Your task to perform on an android device: turn off translation in the chrome app Image 0: 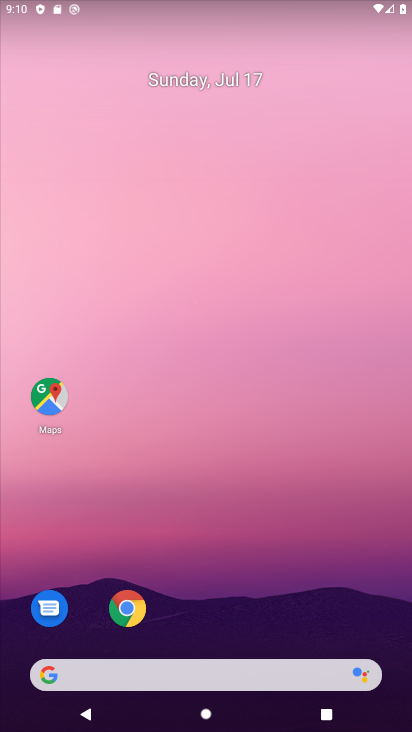
Step 0: drag from (346, 613) to (409, 143)
Your task to perform on an android device: turn off translation in the chrome app Image 1: 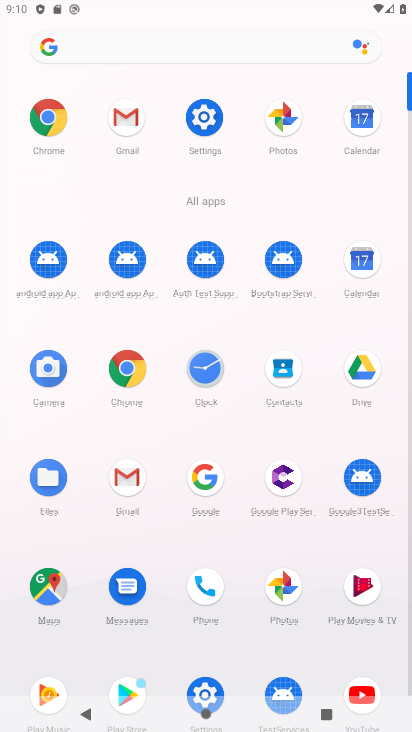
Step 1: click (54, 126)
Your task to perform on an android device: turn off translation in the chrome app Image 2: 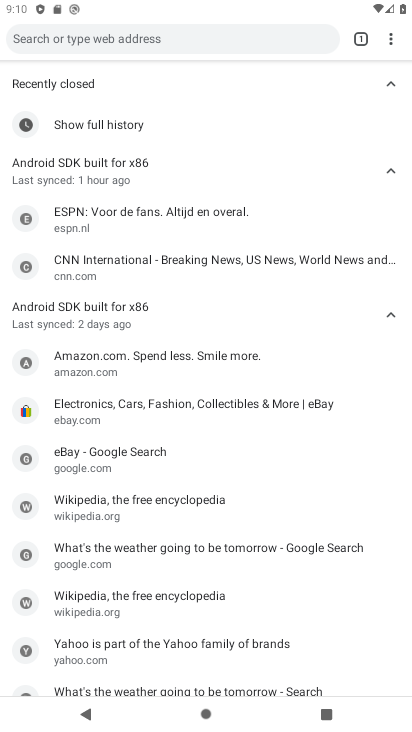
Step 2: drag from (390, 32) to (252, 331)
Your task to perform on an android device: turn off translation in the chrome app Image 3: 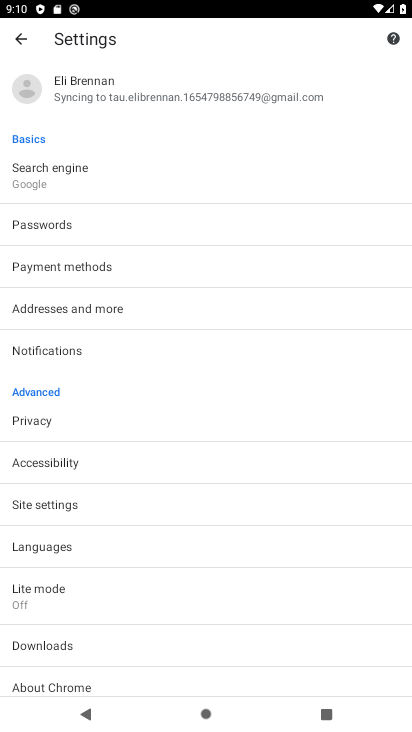
Step 3: click (47, 550)
Your task to perform on an android device: turn off translation in the chrome app Image 4: 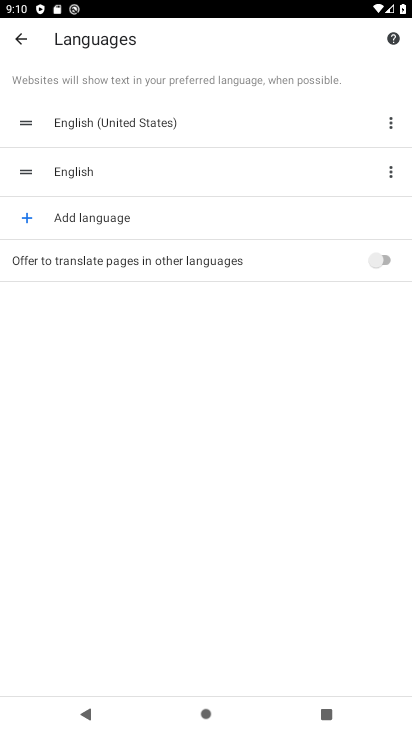
Step 4: task complete